Your task to perform on an android device: turn off notifications in google photos Image 0: 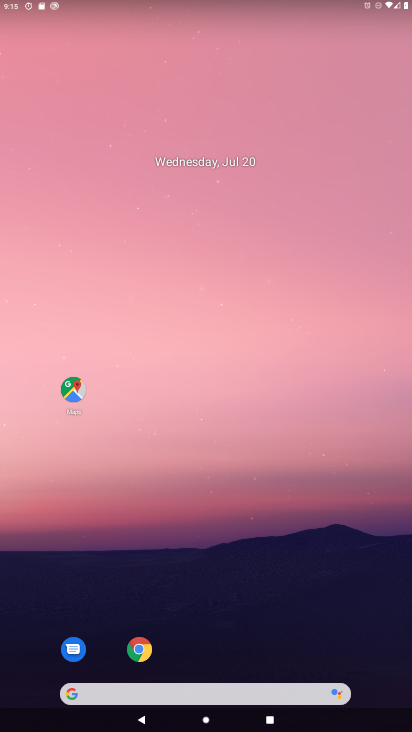
Step 0: drag from (217, 692) to (253, 155)
Your task to perform on an android device: turn off notifications in google photos Image 1: 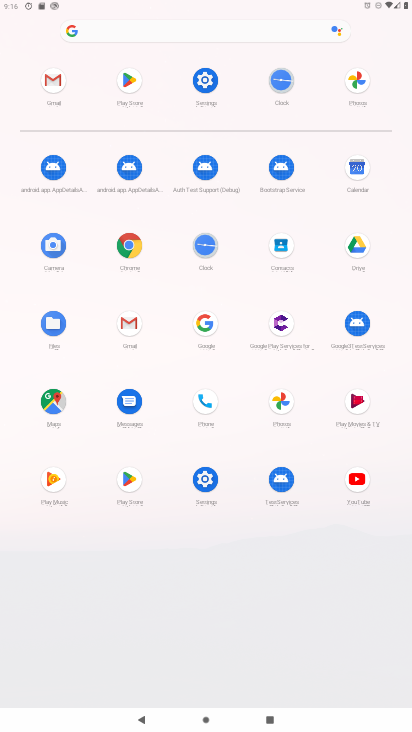
Step 1: click (279, 400)
Your task to perform on an android device: turn off notifications in google photos Image 2: 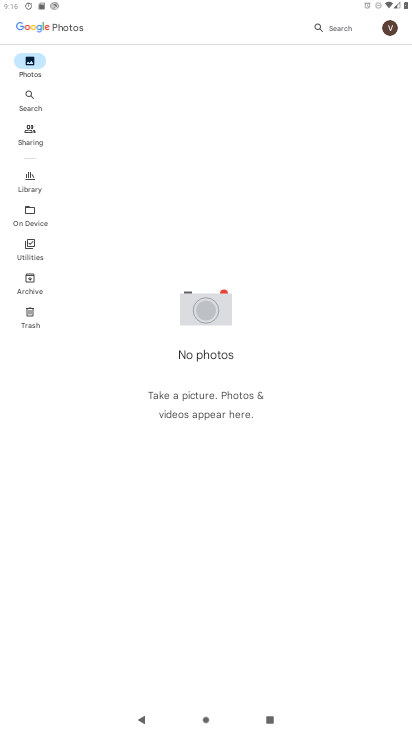
Step 2: click (392, 27)
Your task to perform on an android device: turn off notifications in google photos Image 3: 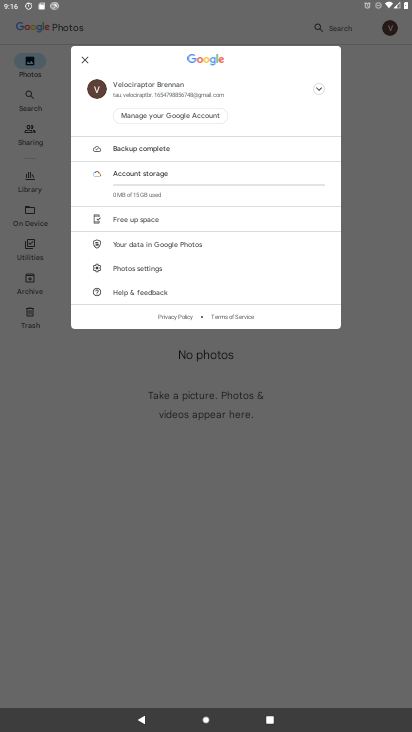
Step 3: click (144, 267)
Your task to perform on an android device: turn off notifications in google photos Image 4: 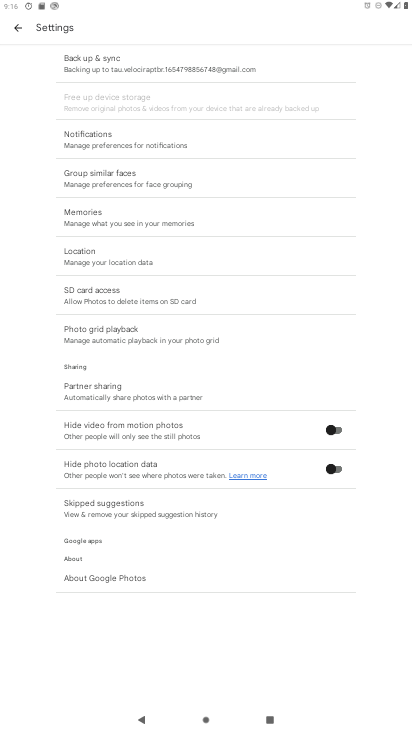
Step 4: click (164, 142)
Your task to perform on an android device: turn off notifications in google photos Image 5: 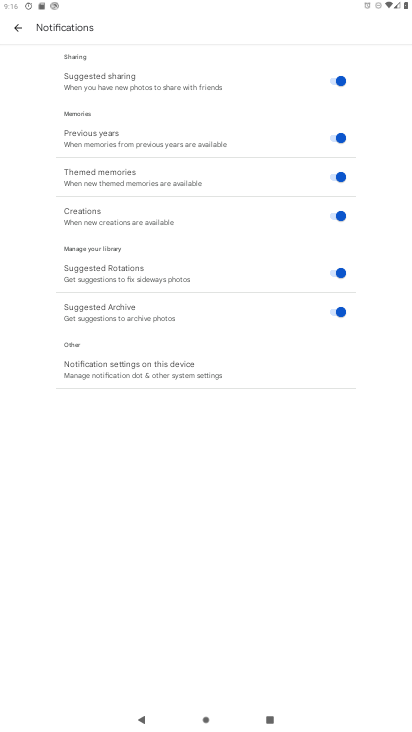
Step 5: click (135, 372)
Your task to perform on an android device: turn off notifications in google photos Image 6: 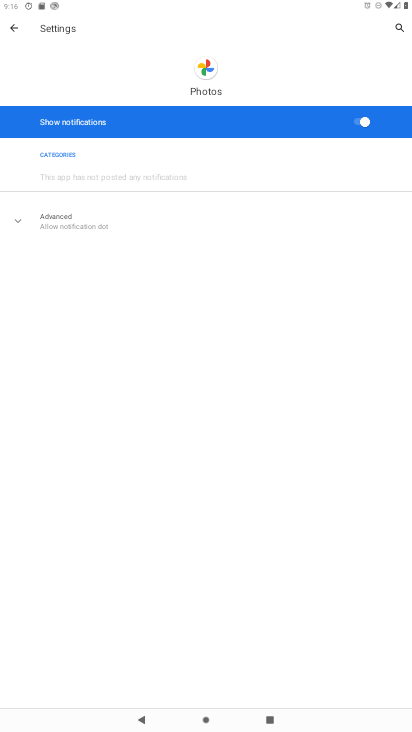
Step 6: click (355, 123)
Your task to perform on an android device: turn off notifications in google photos Image 7: 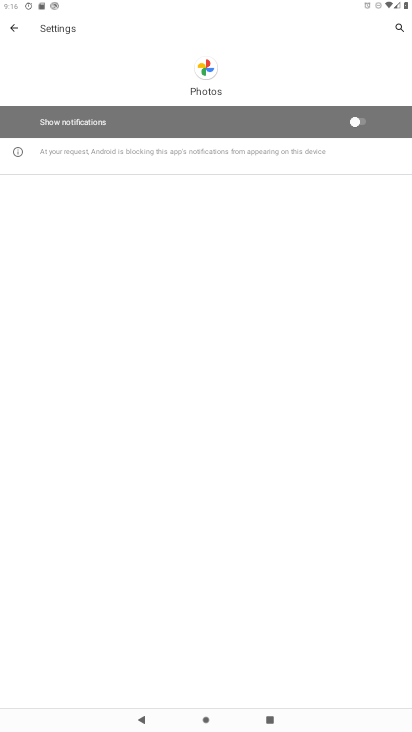
Step 7: task complete